Your task to perform on an android device: Open Google Chrome and open the bookmarks view Image 0: 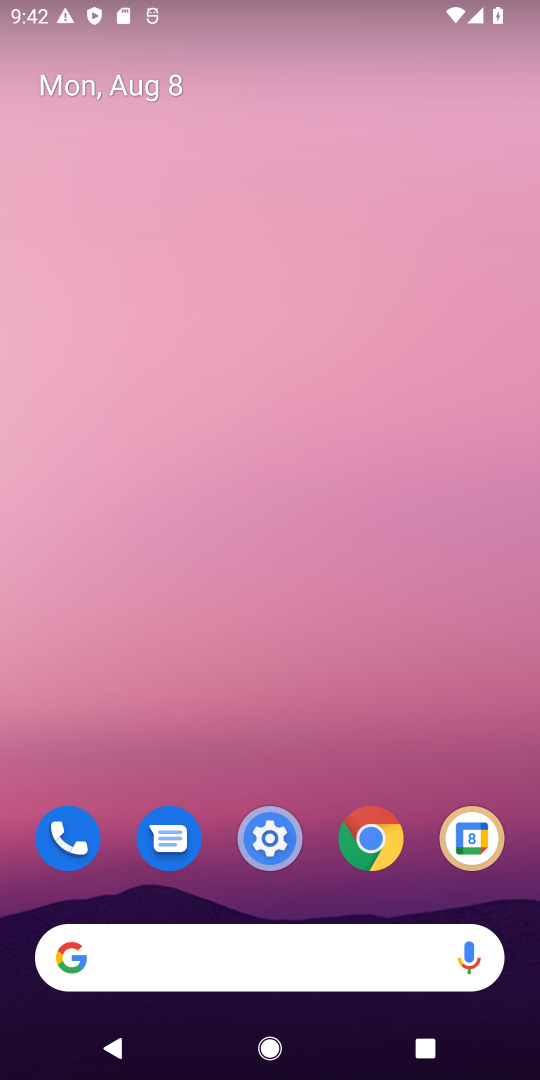
Step 0: press home button
Your task to perform on an android device: Open Google Chrome and open the bookmarks view Image 1: 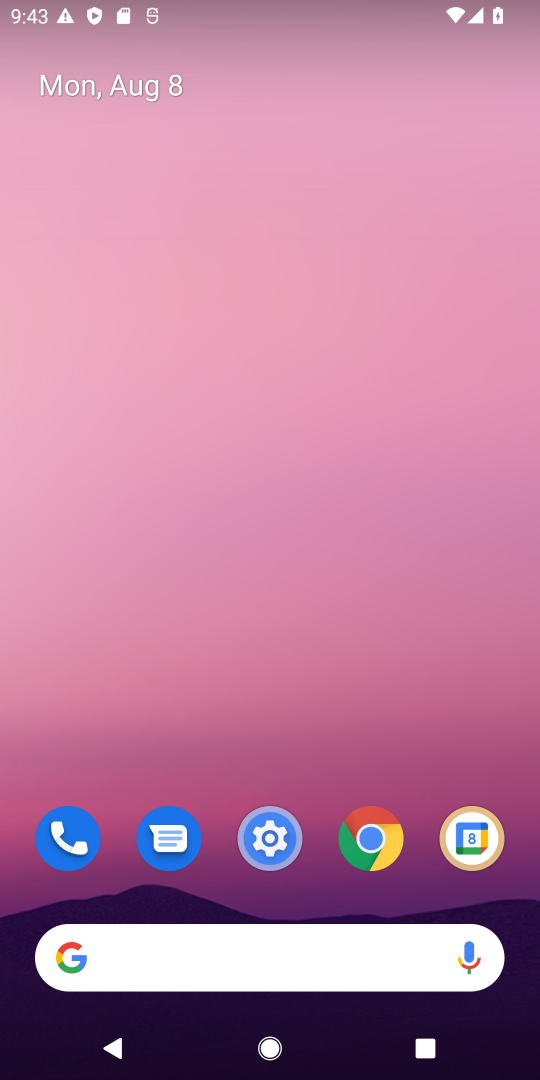
Step 1: click (379, 854)
Your task to perform on an android device: Open Google Chrome and open the bookmarks view Image 2: 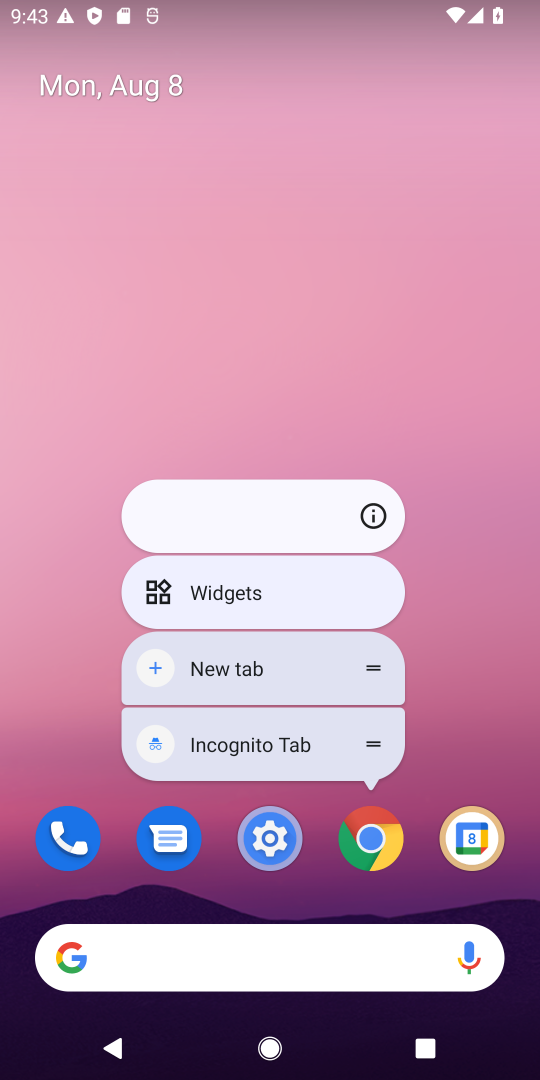
Step 2: click (380, 853)
Your task to perform on an android device: Open Google Chrome and open the bookmarks view Image 3: 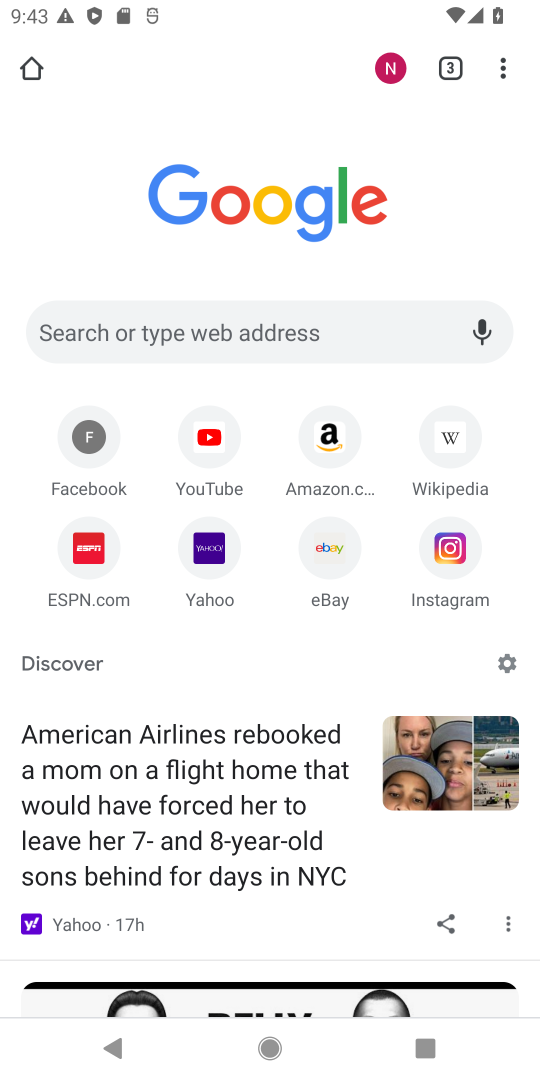
Step 3: task complete